Your task to perform on an android device: Search for vegetarian restaurants on Maps Image 0: 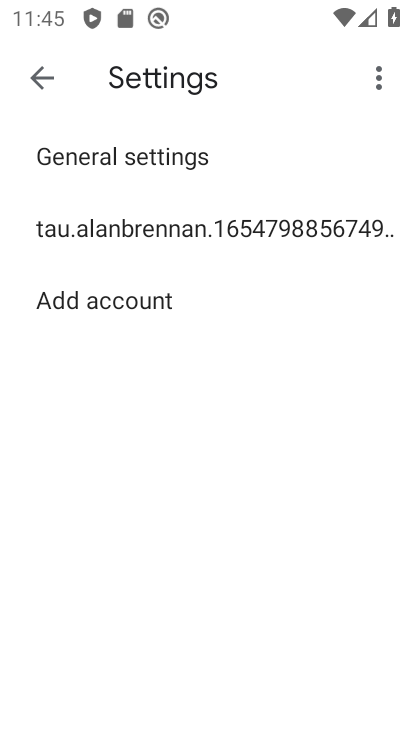
Step 0: press home button
Your task to perform on an android device: Search for vegetarian restaurants on Maps Image 1: 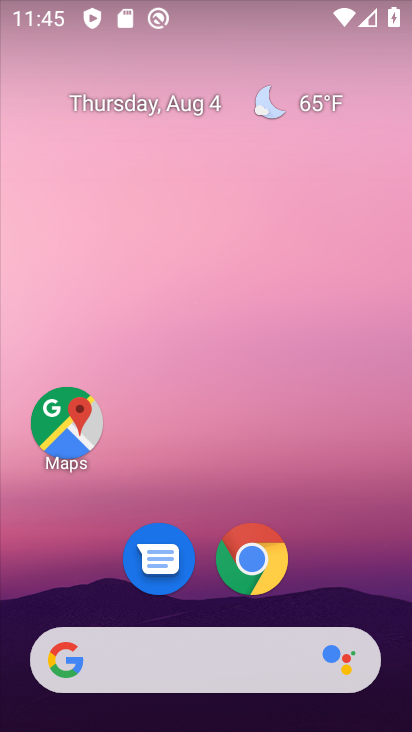
Step 1: click (80, 429)
Your task to perform on an android device: Search for vegetarian restaurants on Maps Image 2: 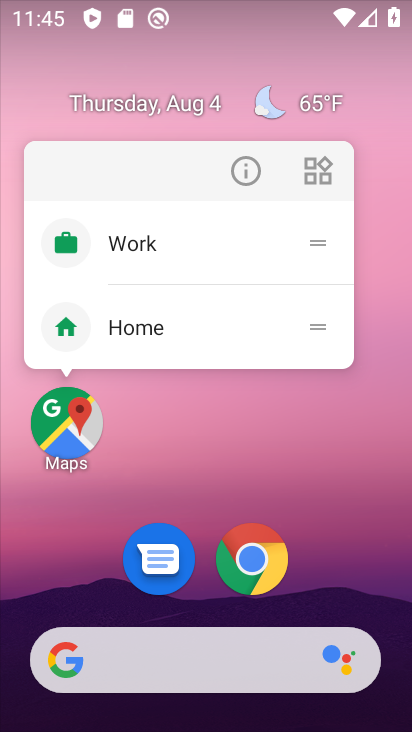
Step 2: click (80, 429)
Your task to perform on an android device: Search for vegetarian restaurants on Maps Image 3: 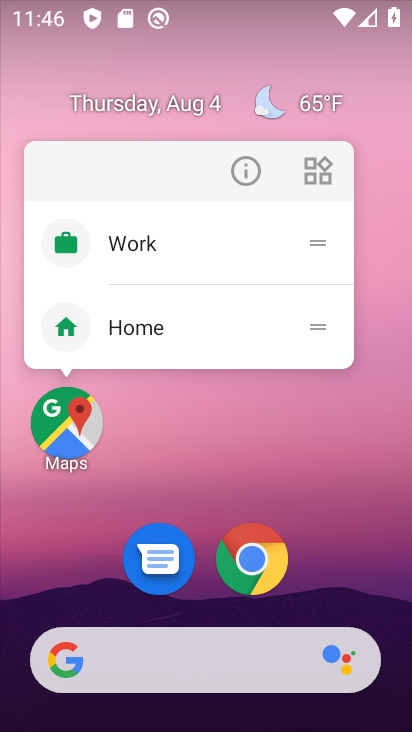
Step 3: click (80, 429)
Your task to perform on an android device: Search for vegetarian restaurants on Maps Image 4: 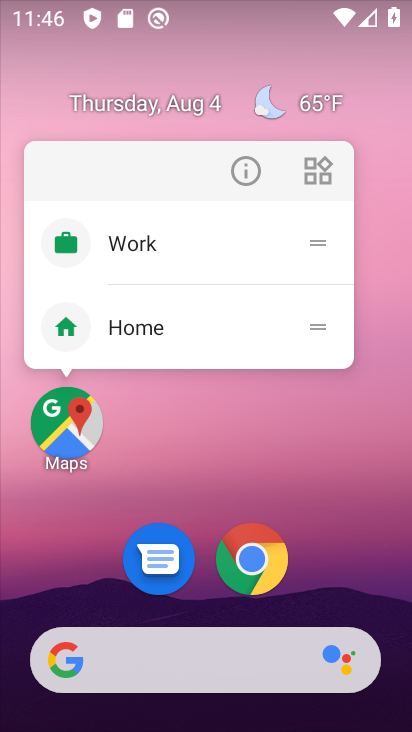
Step 4: click (80, 436)
Your task to perform on an android device: Search for vegetarian restaurants on Maps Image 5: 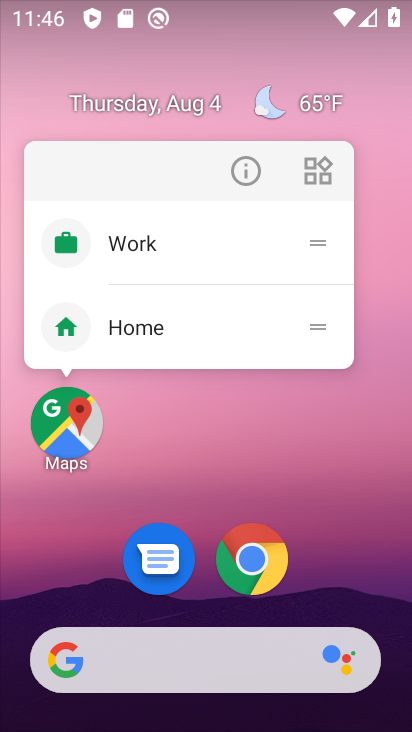
Step 5: click (74, 432)
Your task to perform on an android device: Search for vegetarian restaurants on Maps Image 6: 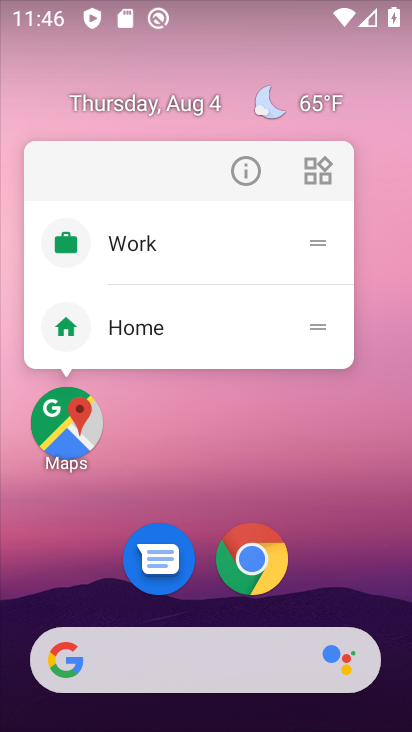
Step 6: click (54, 424)
Your task to perform on an android device: Search for vegetarian restaurants on Maps Image 7: 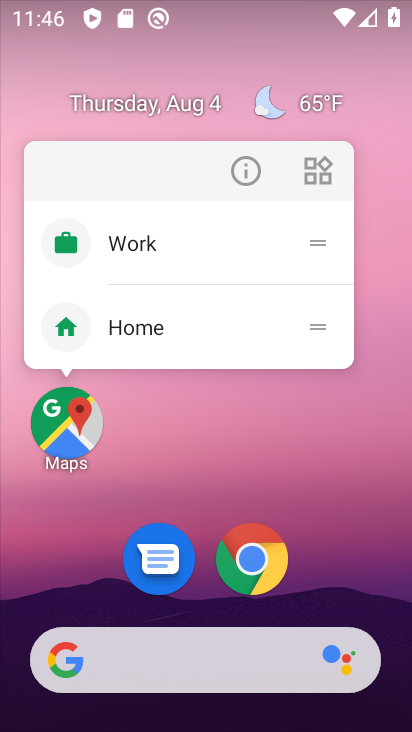
Step 7: click (37, 450)
Your task to perform on an android device: Search for vegetarian restaurants on Maps Image 8: 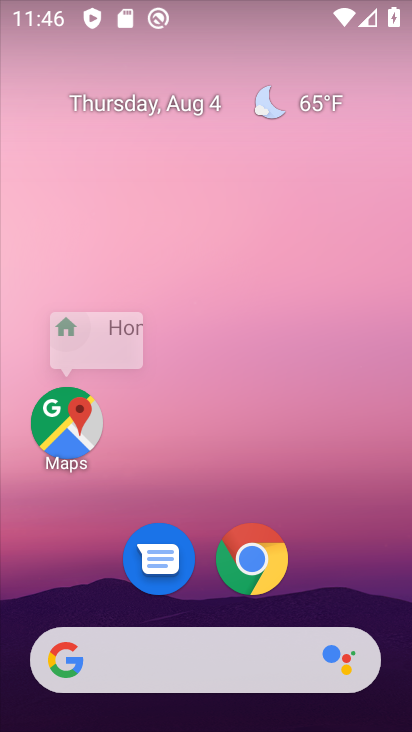
Step 8: click (81, 454)
Your task to perform on an android device: Search for vegetarian restaurants on Maps Image 9: 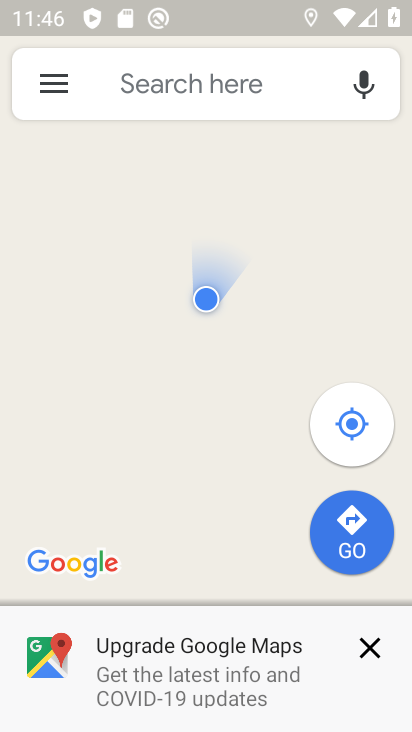
Step 9: click (261, 65)
Your task to perform on an android device: Search for vegetarian restaurants on Maps Image 10: 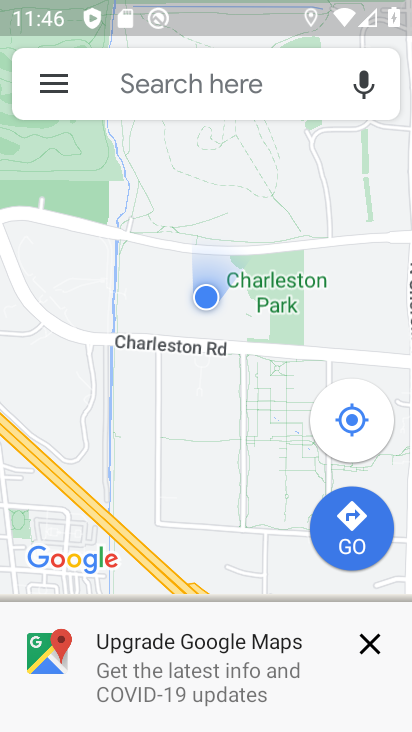
Step 10: click (256, 81)
Your task to perform on an android device: Search for vegetarian restaurants on Maps Image 11: 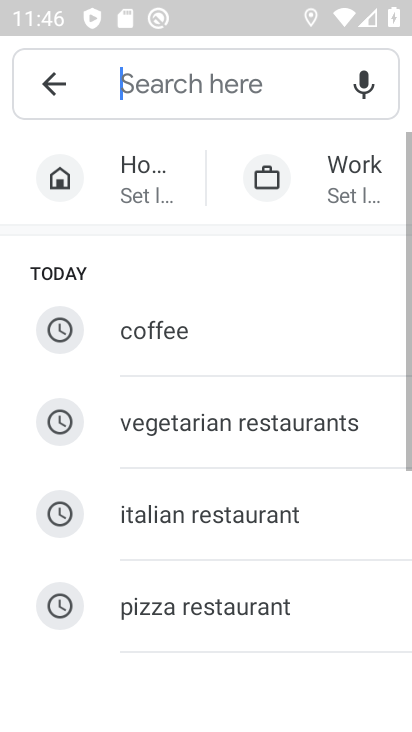
Step 11: click (225, 420)
Your task to perform on an android device: Search for vegetarian restaurants on Maps Image 12: 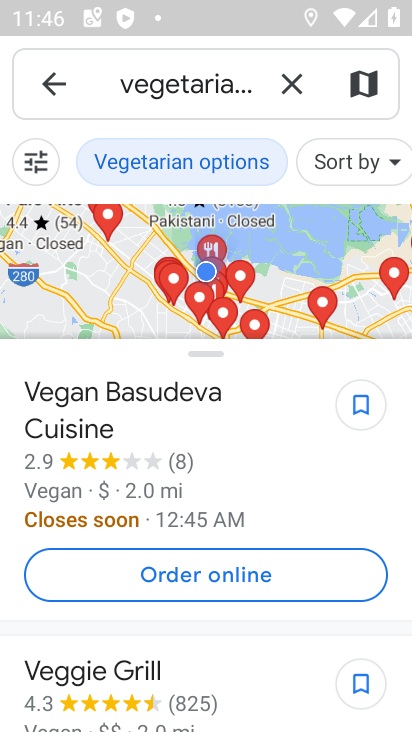
Step 12: task complete